Your task to perform on an android device: Search for Italian restaurants on Maps Image 0: 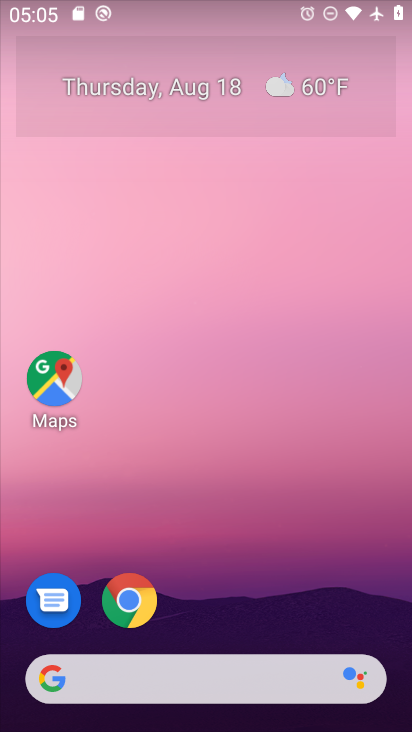
Step 0: press home button
Your task to perform on an android device: Search for Italian restaurants on Maps Image 1: 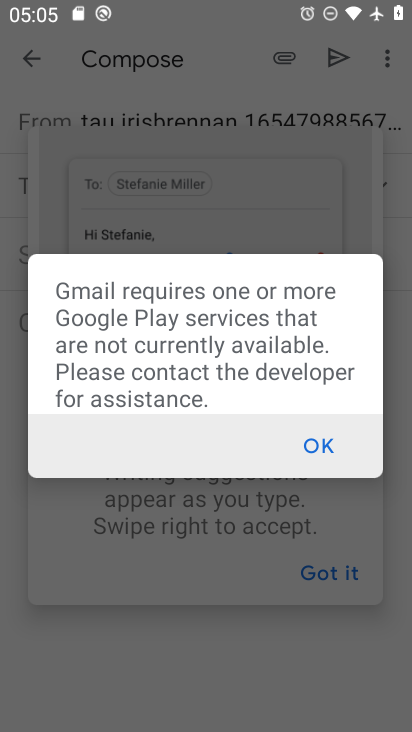
Step 1: press home button
Your task to perform on an android device: Search for Italian restaurants on Maps Image 2: 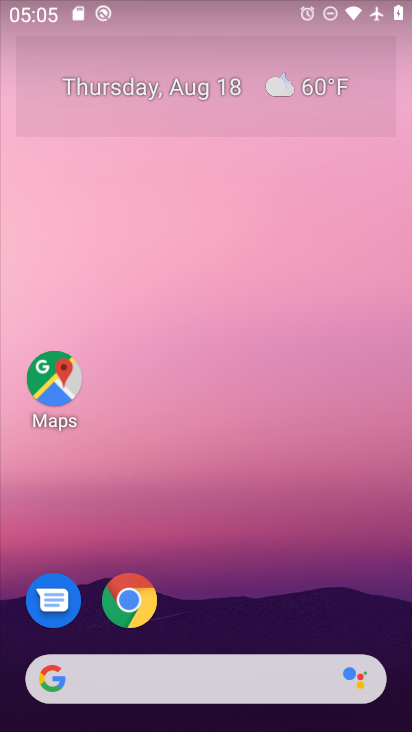
Step 2: click (50, 374)
Your task to perform on an android device: Search for Italian restaurants on Maps Image 3: 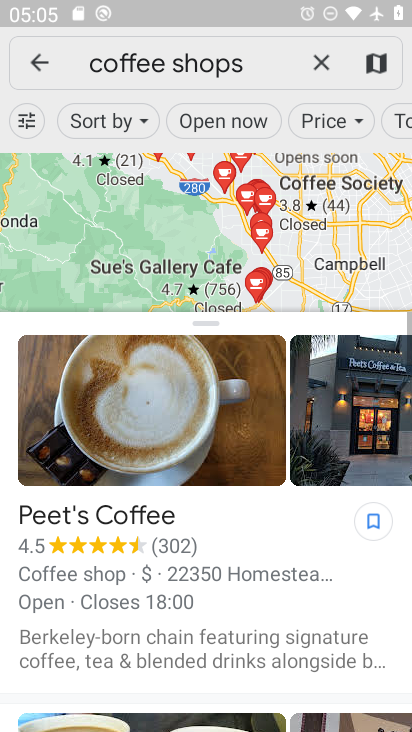
Step 3: press back button
Your task to perform on an android device: Search for Italian restaurants on Maps Image 4: 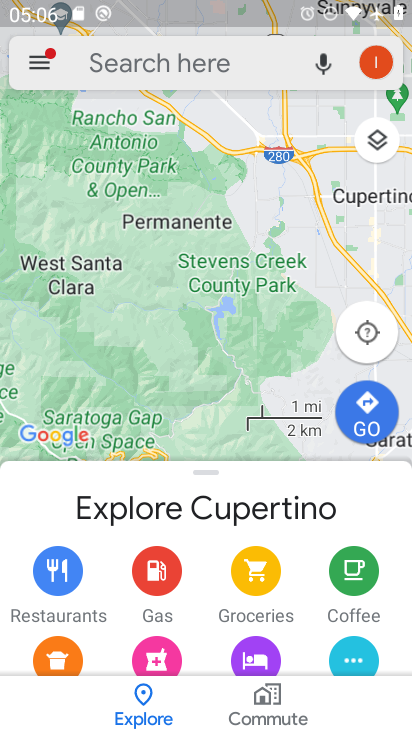
Step 4: click (218, 64)
Your task to perform on an android device: Search for Italian restaurants on Maps Image 5: 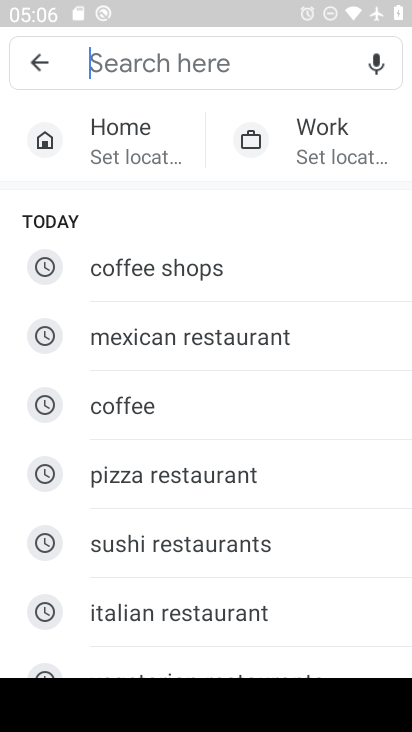
Step 5: click (175, 618)
Your task to perform on an android device: Search for Italian restaurants on Maps Image 6: 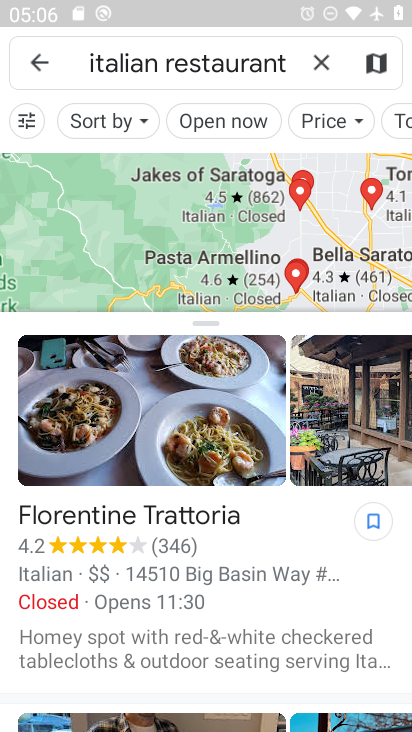
Step 6: task complete